Your task to perform on an android device: Go to network settings Image 0: 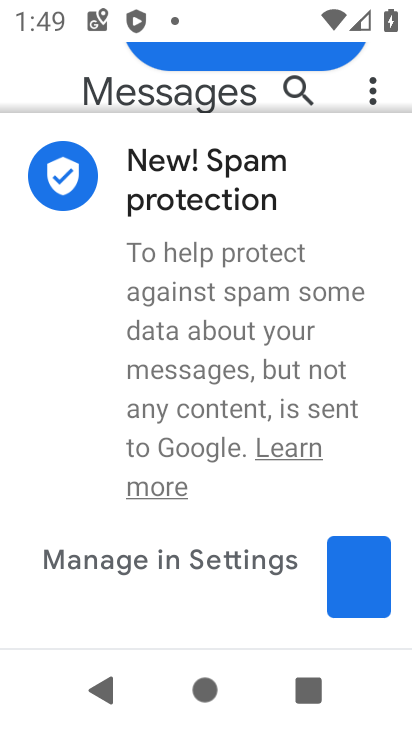
Step 0: press home button
Your task to perform on an android device: Go to network settings Image 1: 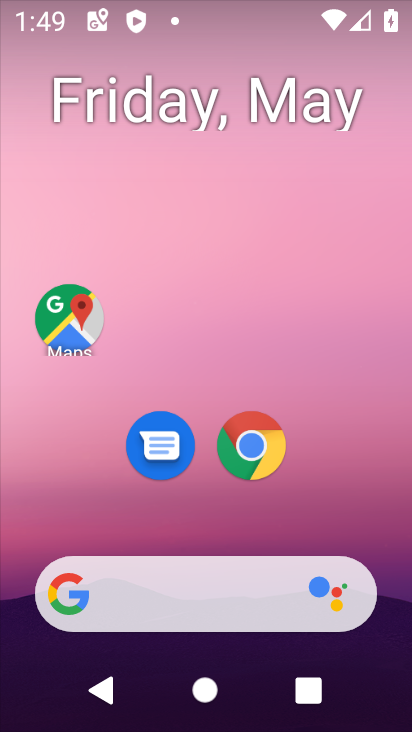
Step 1: drag from (388, 573) to (306, 129)
Your task to perform on an android device: Go to network settings Image 2: 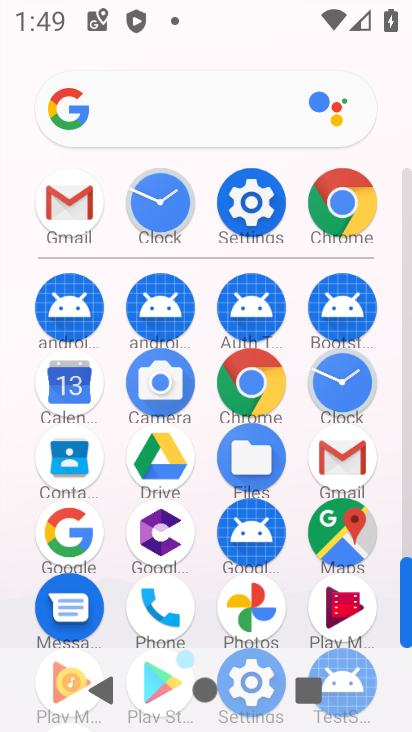
Step 2: click (406, 543)
Your task to perform on an android device: Go to network settings Image 3: 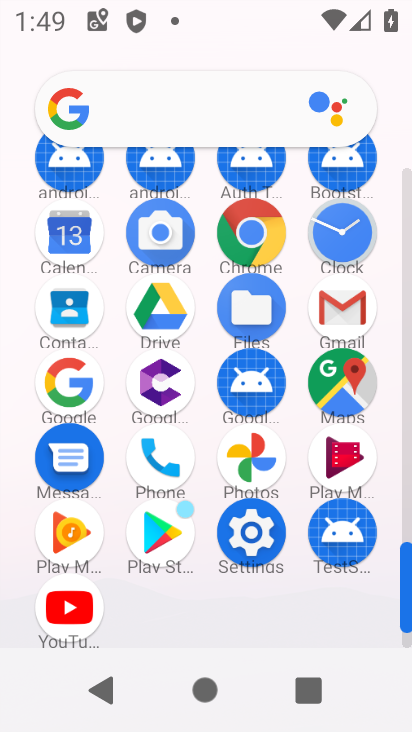
Step 3: click (253, 532)
Your task to perform on an android device: Go to network settings Image 4: 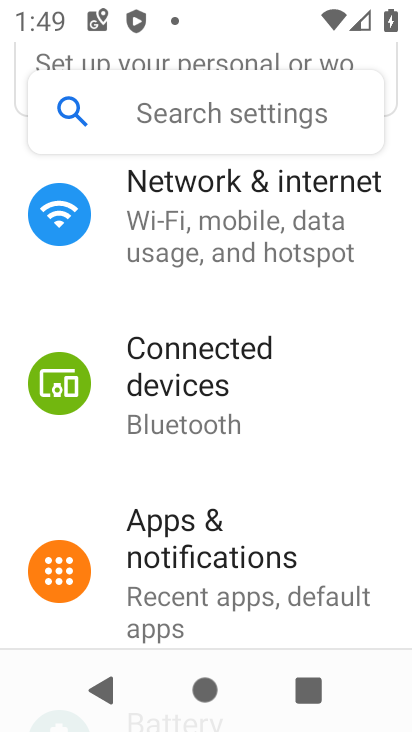
Step 4: click (177, 236)
Your task to perform on an android device: Go to network settings Image 5: 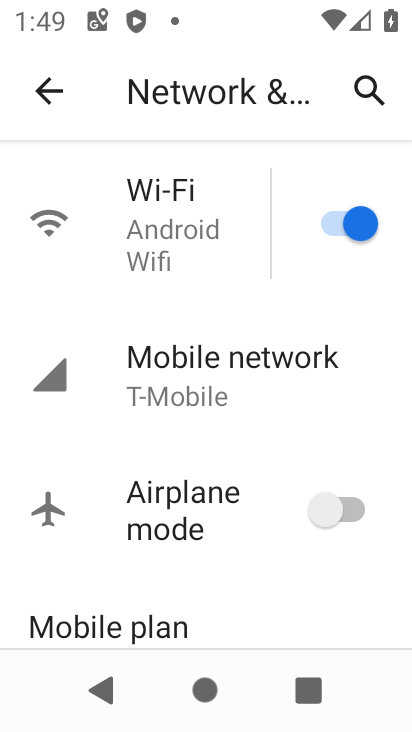
Step 5: click (177, 364)
Your task to perform on an android device: Go to network settings Image 6: 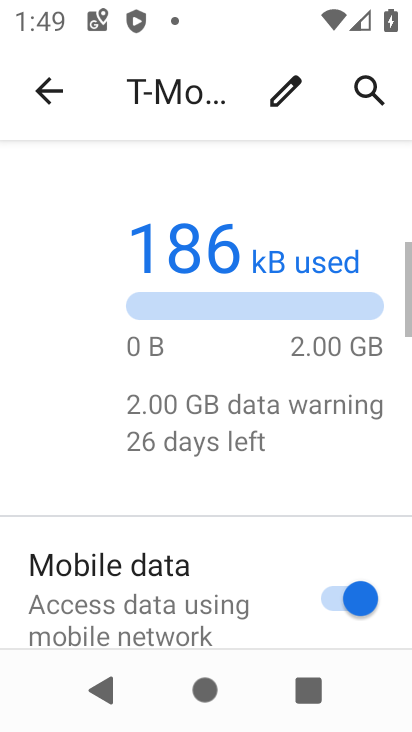
Step 6: task complete